Your task to perform on an android device: open app "Firefox Browser" Image 0: 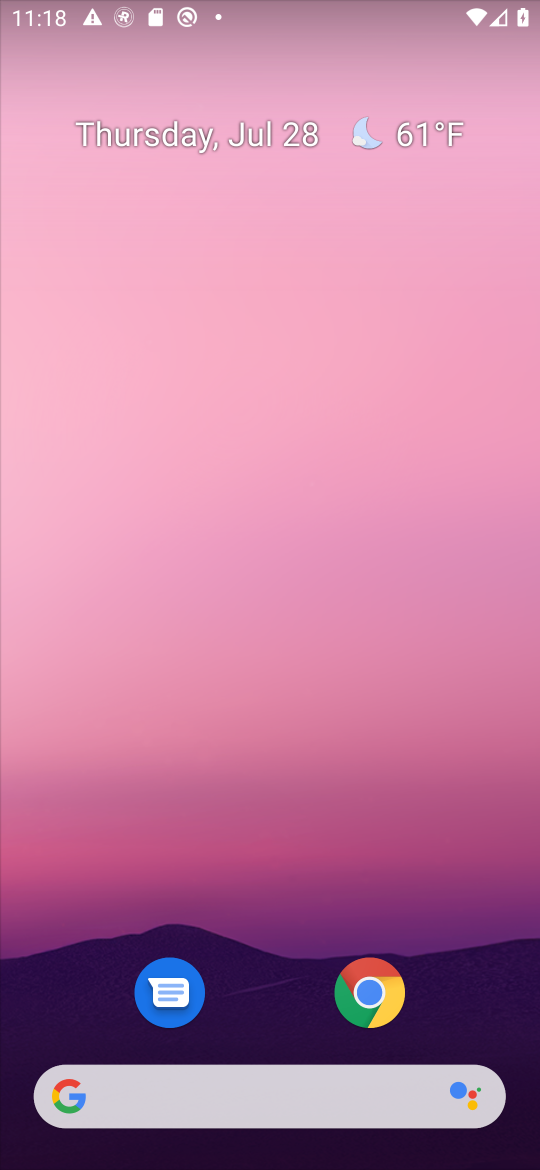
Step 0: drag from (238, 1106) to (339, 70)
Your task to perform on an android device: open app "Firefox Browser" Image 1: 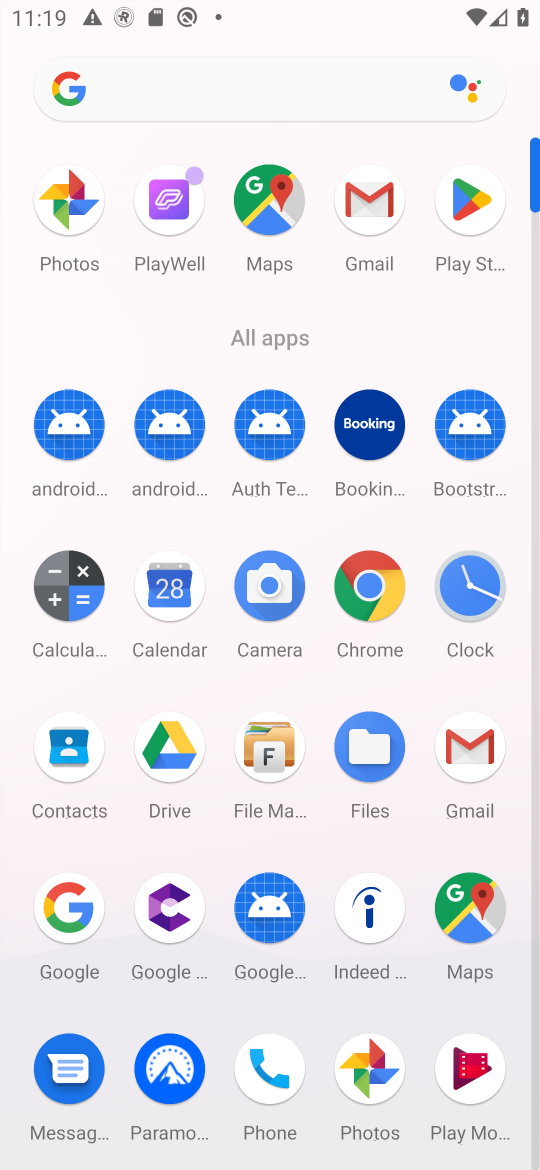
Step 1: click (474, 198)
Your task to perform on an android device: open app "Firefox Browser" Image 2: 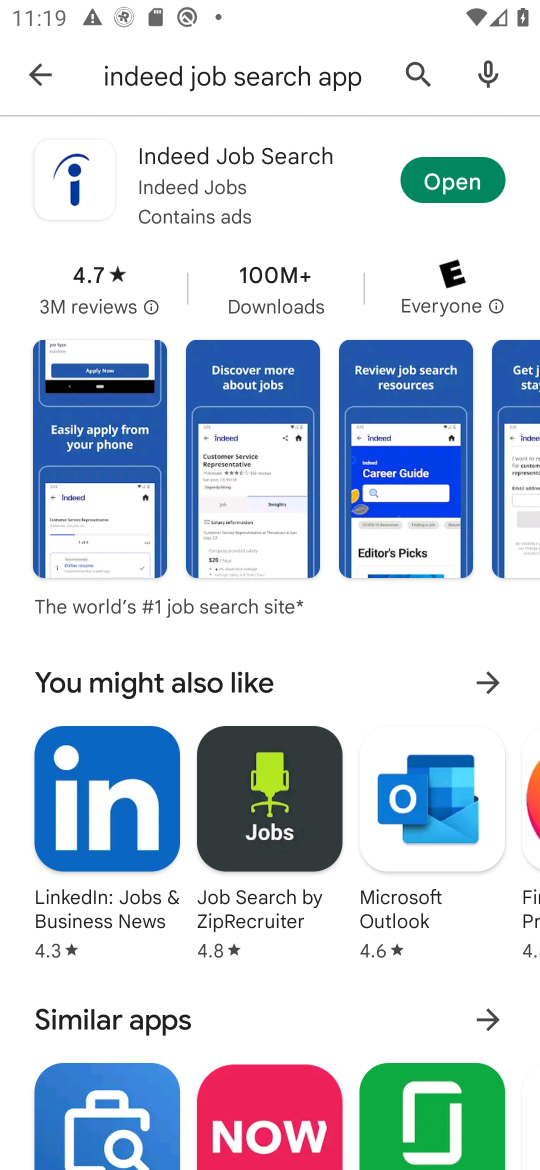
Step 2: click (420, 74)
Your task to perform on an android device: open app "Firefox Browser" Image 3: 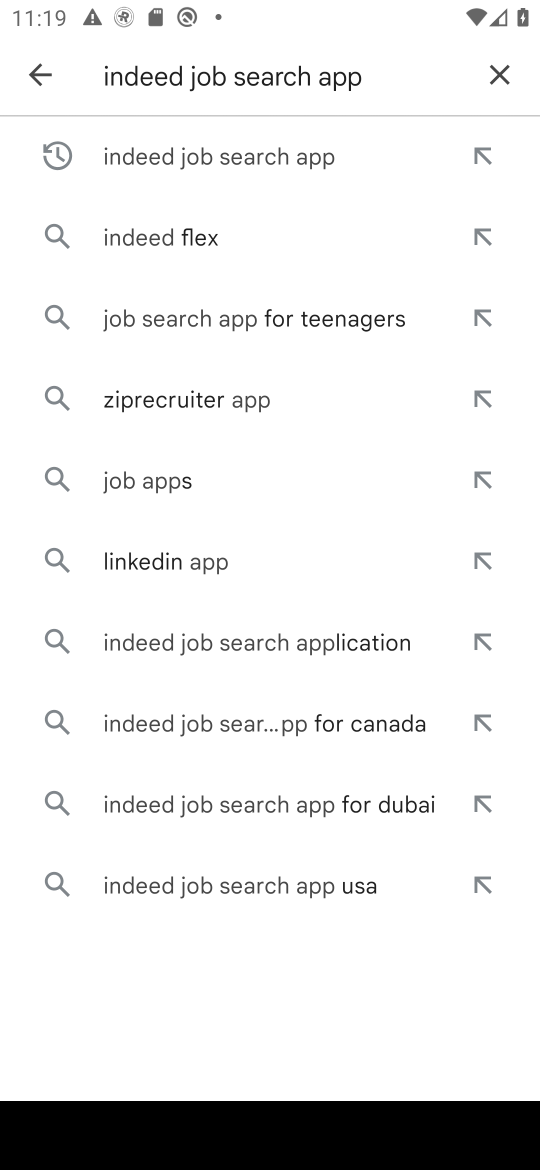
Step 3: click (497, 76)
Your task to perform on an android device: open app "Firefox Browser" Image 4: 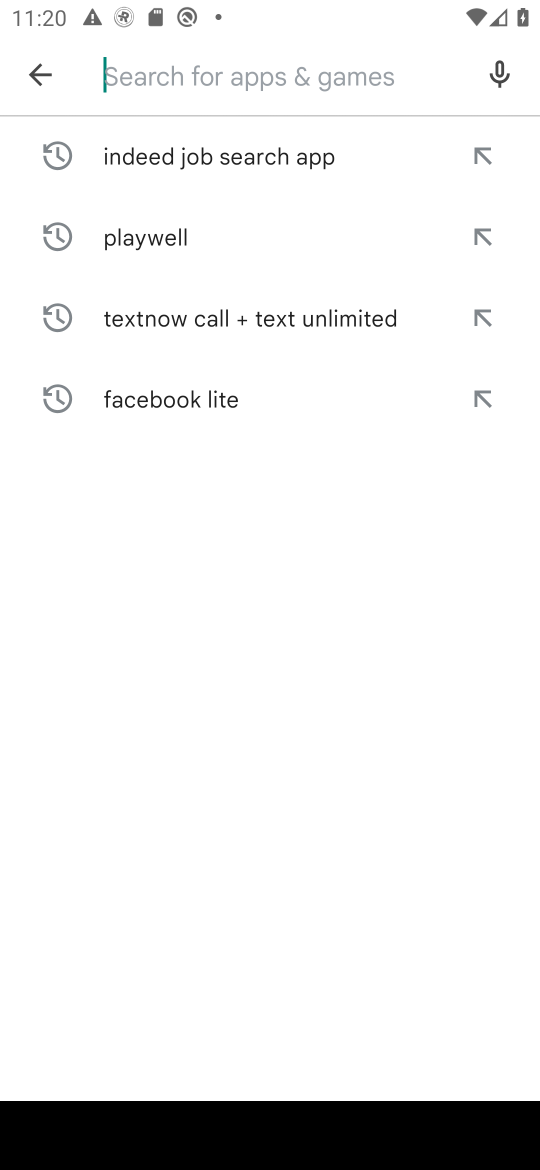
Step 4: type "Firefox Browser"
Your task to perform on an android device: open app "Firefox Browser" Image 5: 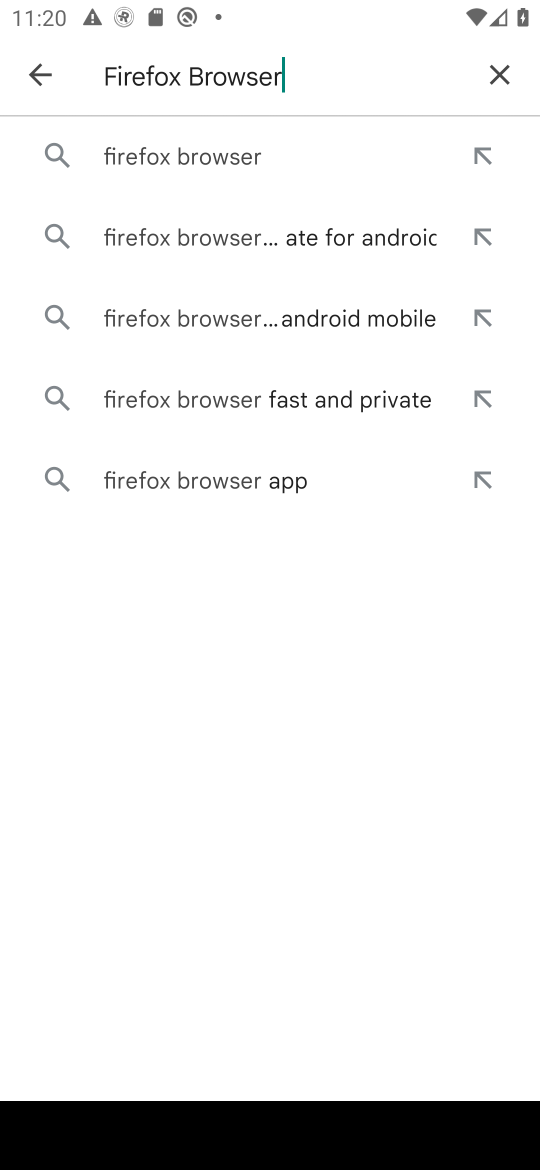
Step 5: click (229, 163)
Your task to perform on an android device: open app "Firefox Browser" Image 6: 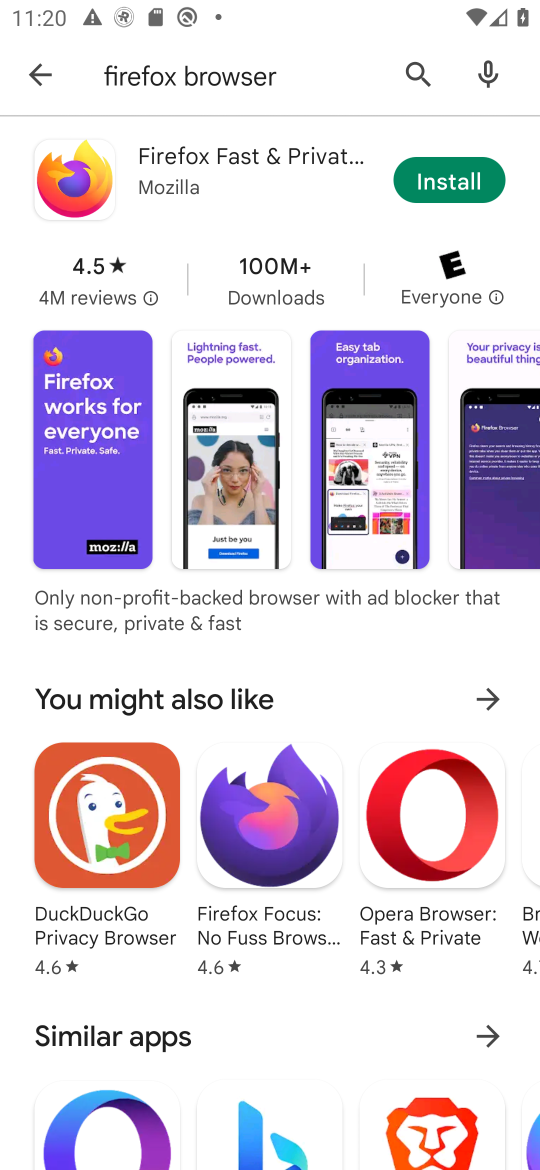
Step 6: task complete